Your task to perform on an android device: Open ESPN.com Image 0: 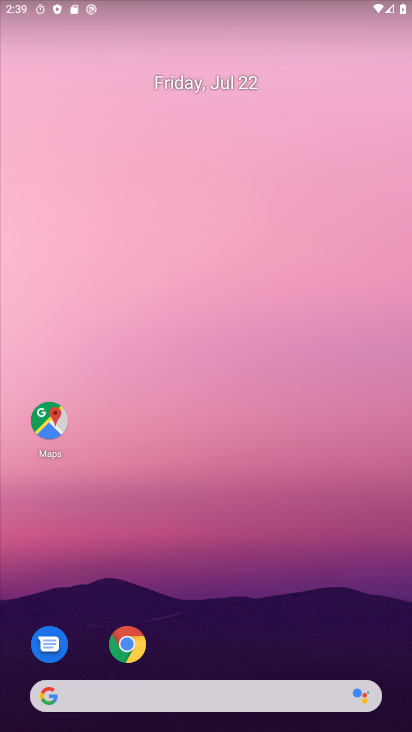
Step 0: press home button
Your task to perform on an android device: Open ESPN.com Image 1: 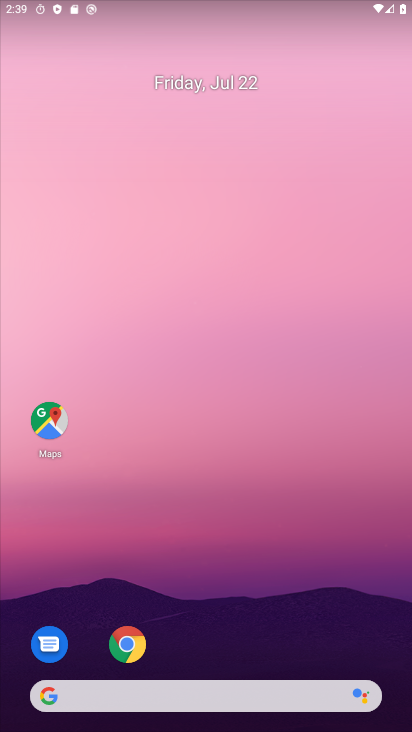
Step 1: click (53, 697)
Your task to perform on an android device: Open ESPN.com Image 2: 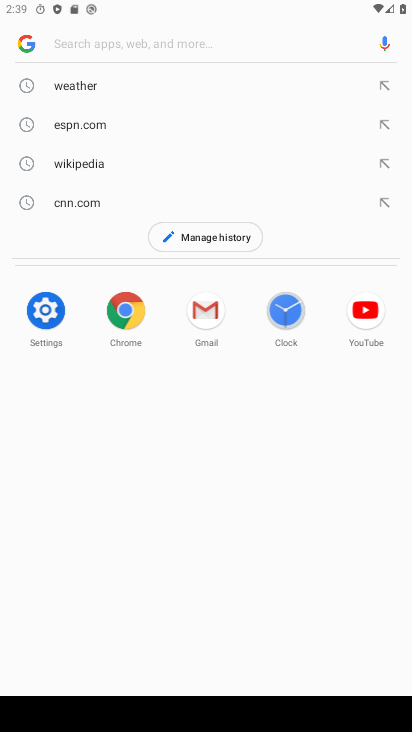
Step 2: click (75, 126)
Your task to perform on an android device: Open ESPN.com Image 3: 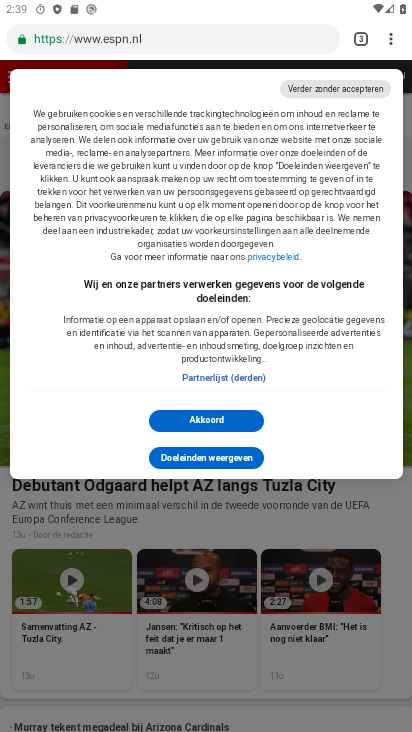
Step 3: task complete